Your task to perform on an android device: Open battery settings Image 0: 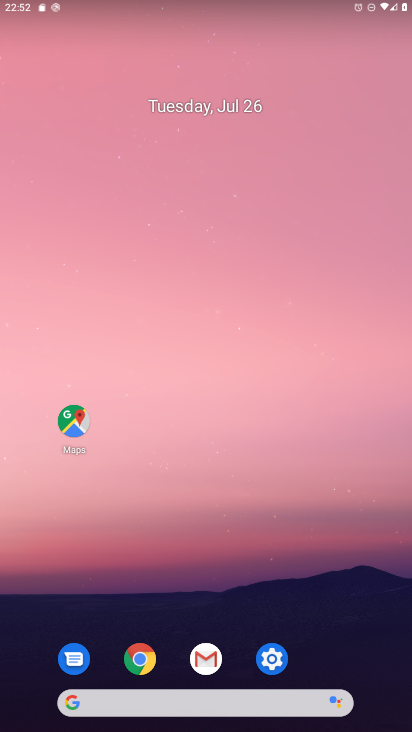
Step 0: click (274, 660)
Your task to perform on an android device: Open battery settings Image 1: 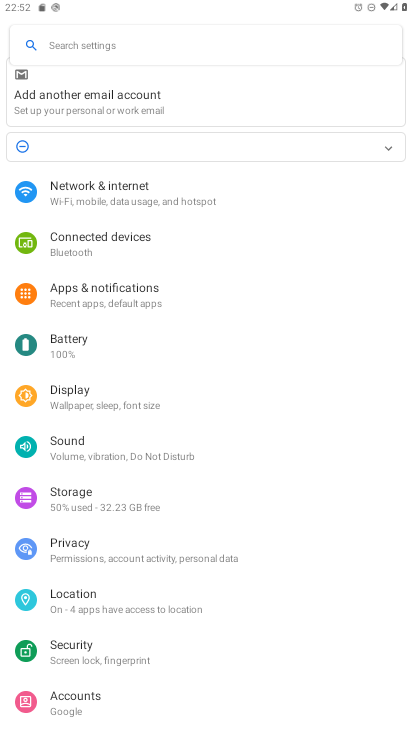
Step 1: click (84, 339)
Your task to perform on an android device: Open battery settings Image 2: 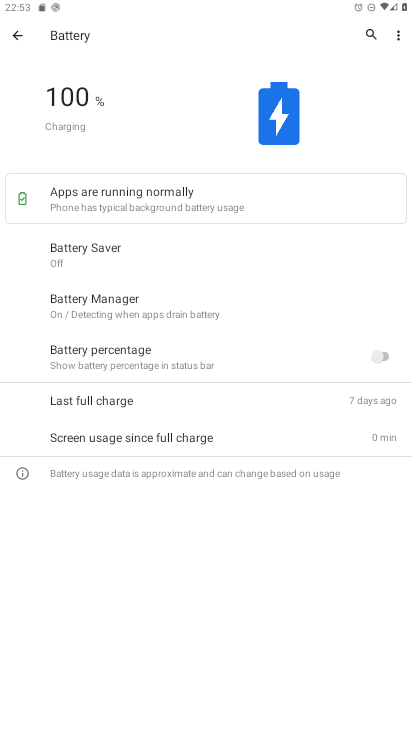
Step 2: task complete